Your task to perform on an android device: move an email to a new category in the gmail app Image 0: 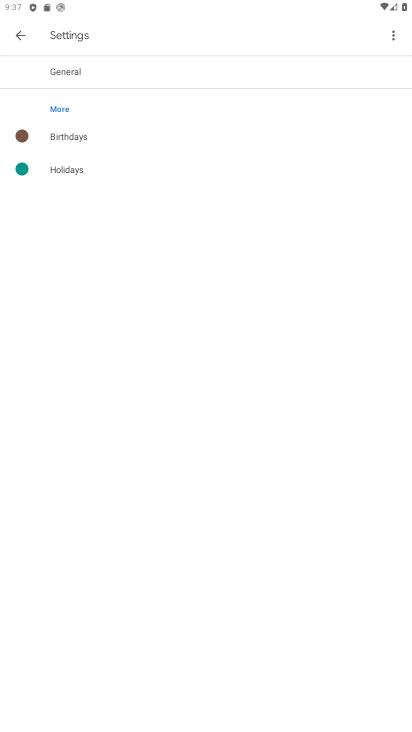
Step 0: press home button
Your task to perform on an android device: move an email to a new category in the gmail app Image 1: 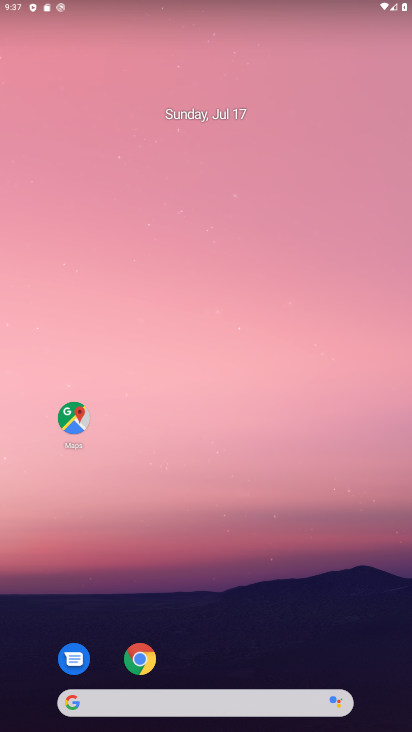
Step 1: drag from (270, 608) to (273, 103)
Your task to perform on an android device: move an email to a new category in the gmail app Image 2: 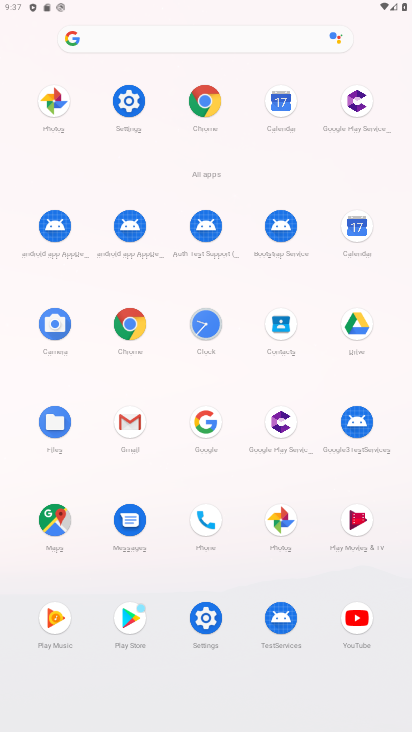
Step 2: click (135, 418)
Your task to perform on an android device: move an email to a new category in the gmail app Image 3: 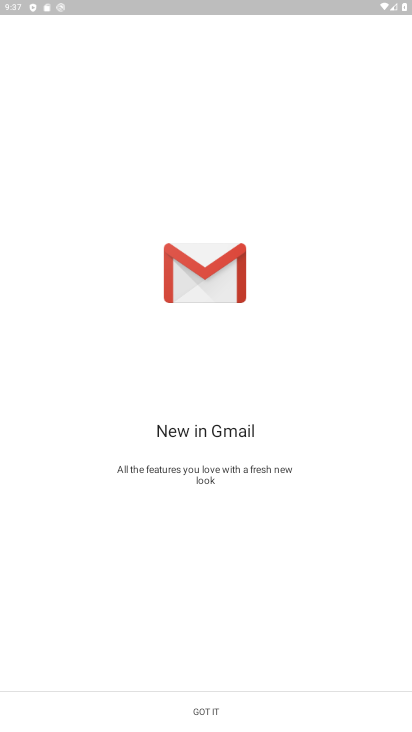
Step 3: click (245, 715)
Your task to perform on an android device: move an email to a new category in the gmail app Image 4: 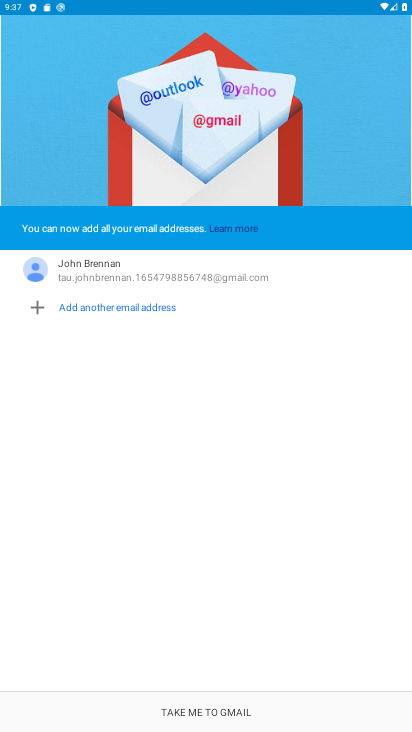
Step 4: click (259, 710)
Your task to perform on an android device: move an email to a new category in the gmail app Image 5: 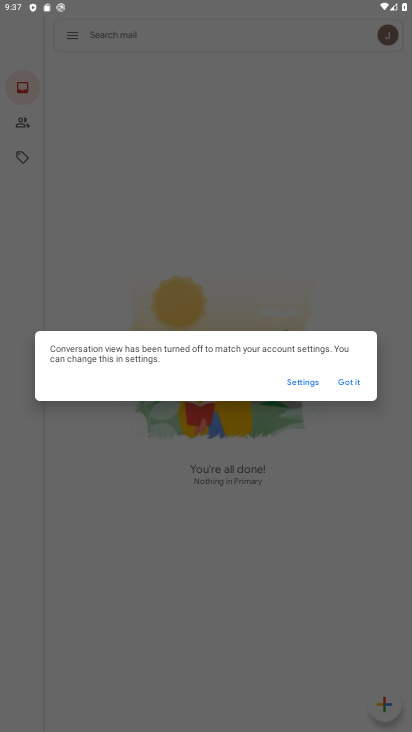
Step 5: click (350, 374)
Your task to perform on an android device: move an email to a new category in the gmail app Image 6: 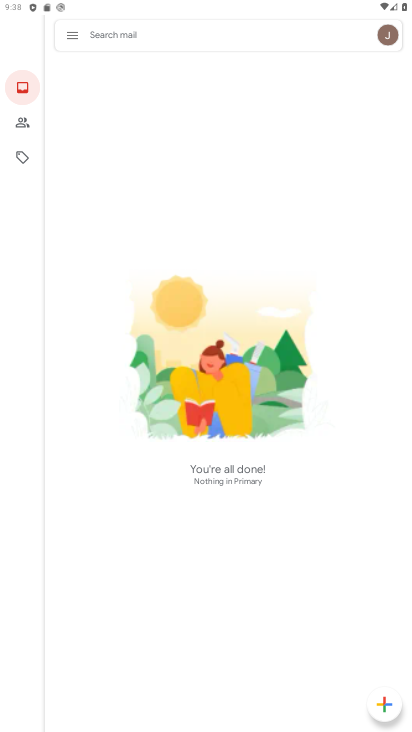
Step 6: click (69, 42)
Your task to perform on an android device: move an email to a new category in the gmail app Image 7: 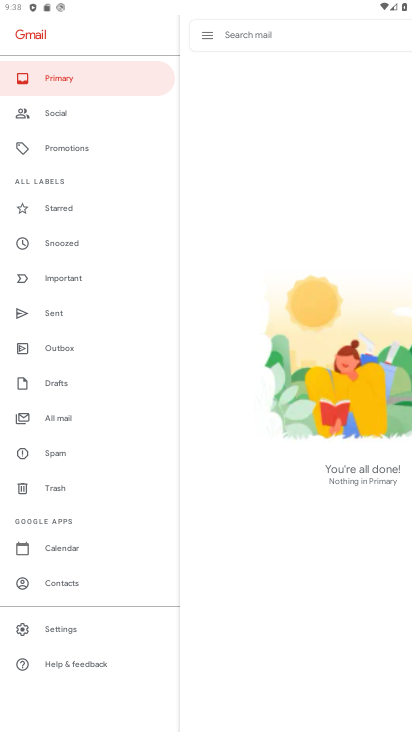
Step 7: click (66, 409)
Your task to perform on an android device: move an email to a new category in the gmail app Image 8: 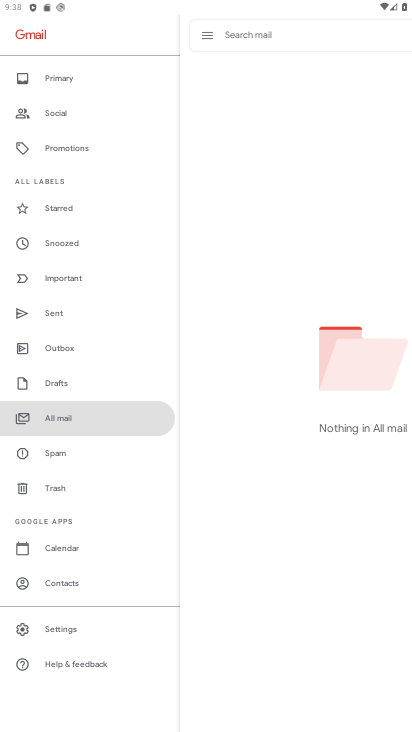
Step 8: task complete